Your task to perform on an android device: Show me recent news Image 0: 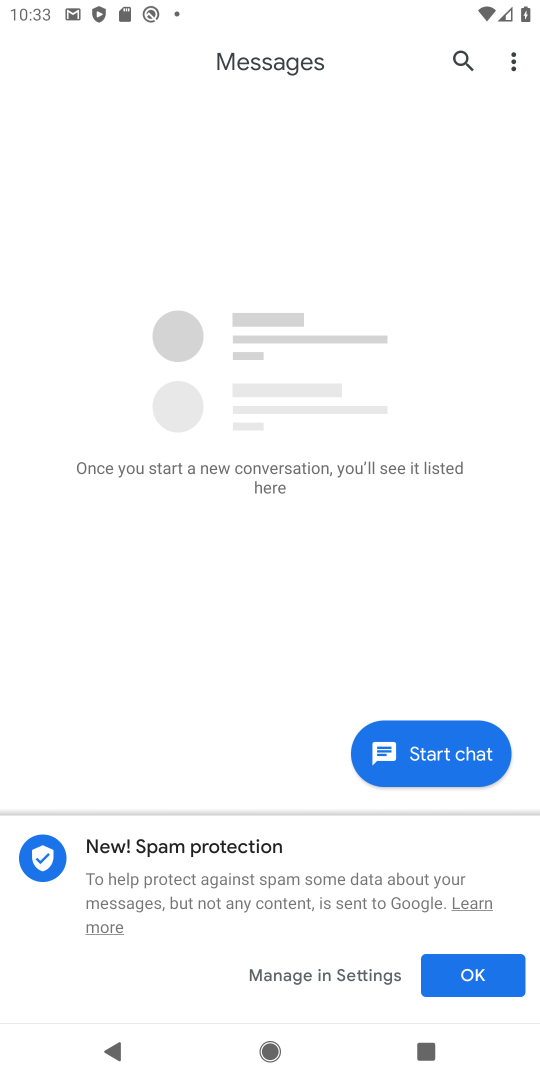
Step 0: press back button
Your task to perform on an android device: Show me recent news Image 1: 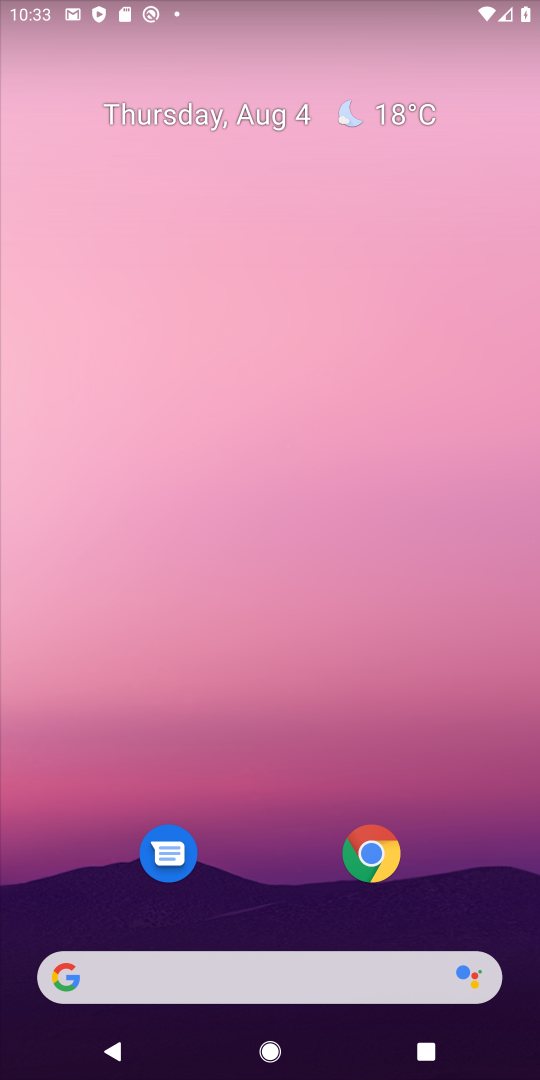
Step 1: click (274, 960)
Your task to perform on an android device: Show me recent news Image 2: 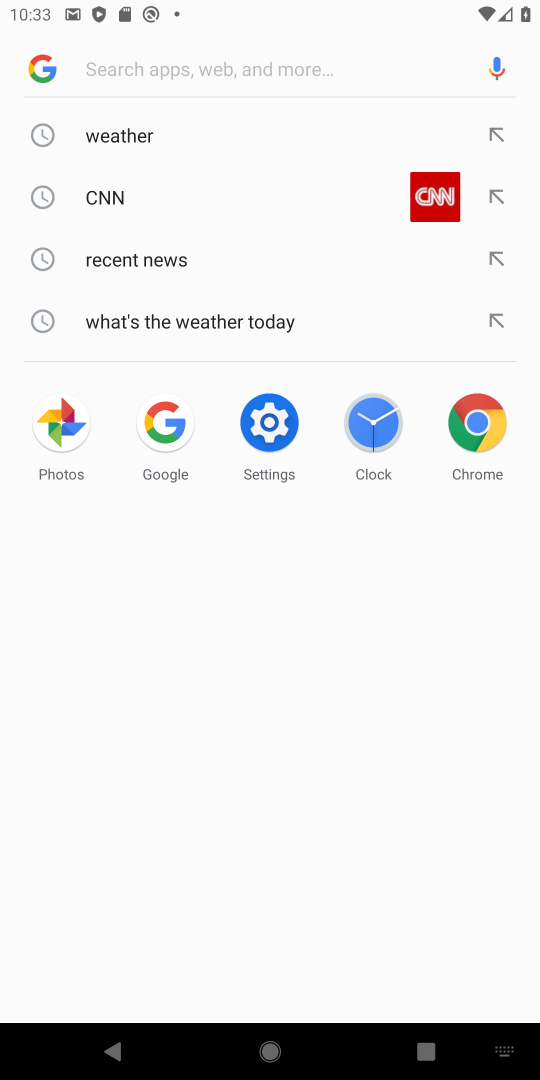
Step 2: click (137, 252)
Your task to perform on an android device: Show me recent news Image 3: 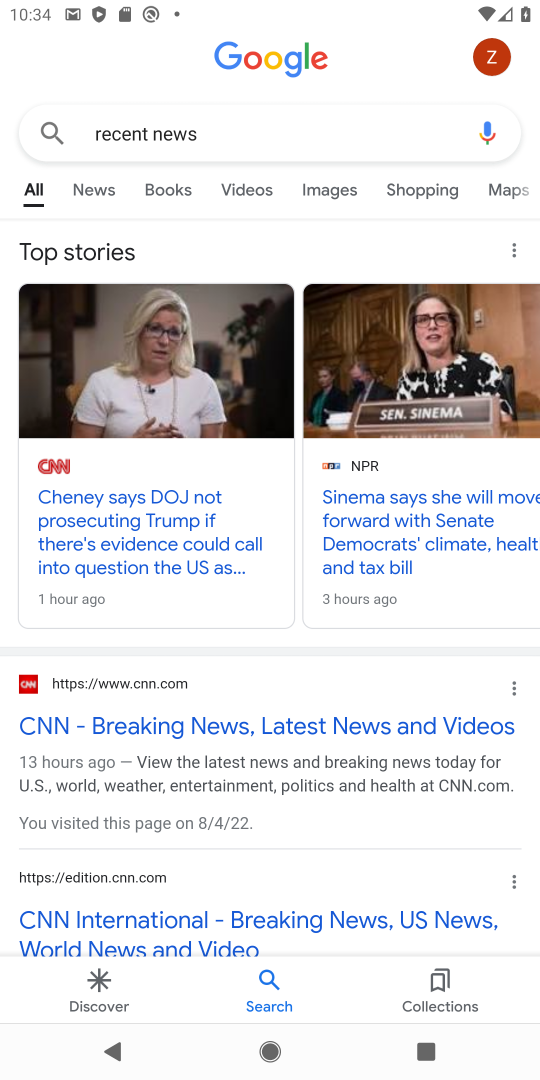
Step 3: click (77, 190)
Your task to perform on an android device: Show me recent news Image 4: 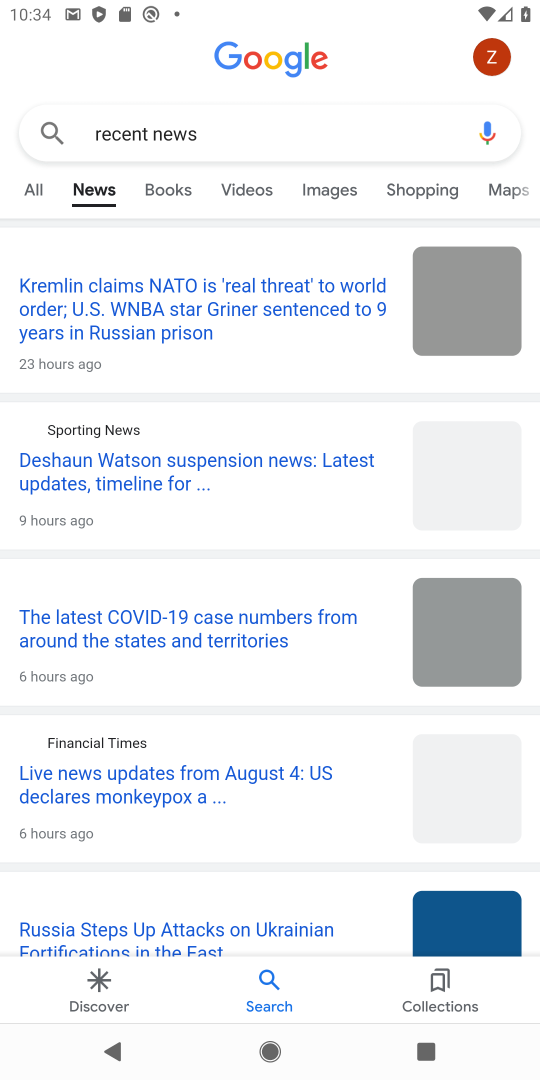
Step 4: task complete